Your task to perform on an android device: Go to calendar. Show me events next week Image 0: 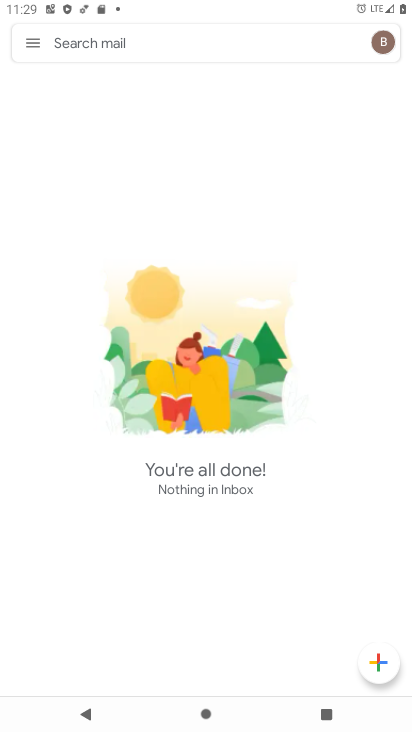
Step 0: press home button
Your task to perform on an android device: Go to calendar. Show me events next week Image 1: 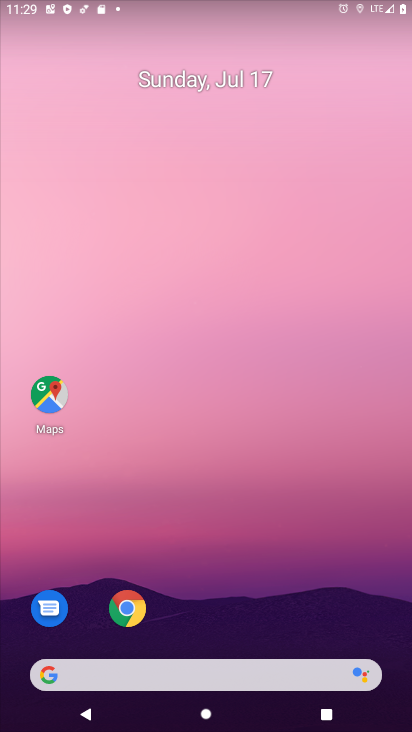
Step 1: drag from (220, 648) to (155, 34)
Your task to perform on an android device: Go to calendar. Show me events next week Image 2: 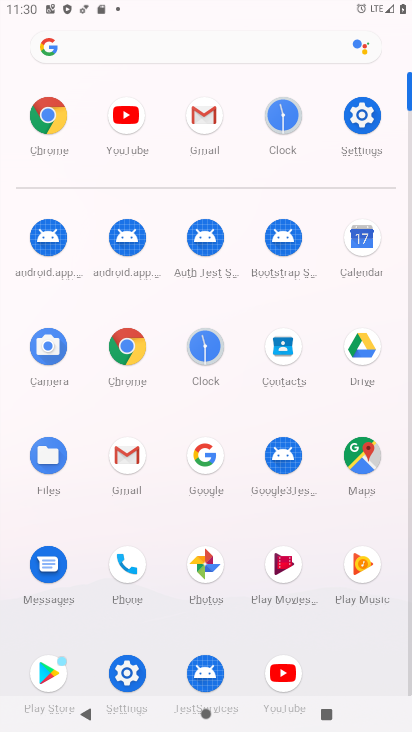
Step 2: click (374, 232)
Your task to perform on an android device: Go to calendar. Show me events next week Image 3: 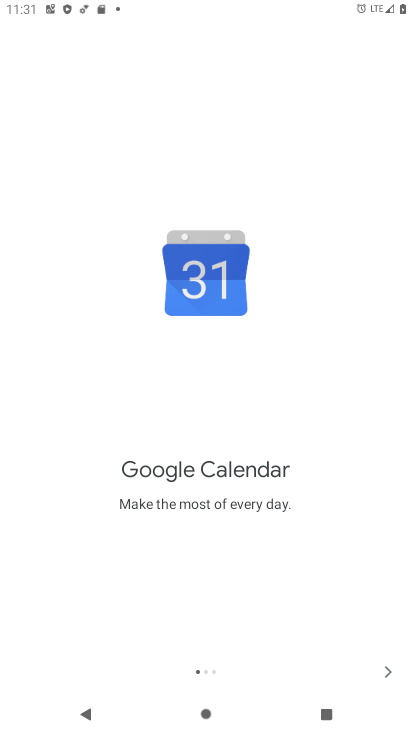
Step 3: click (384, 667)
Your task to perform on an android device: Go to calendar. Show me events next week Image 4: 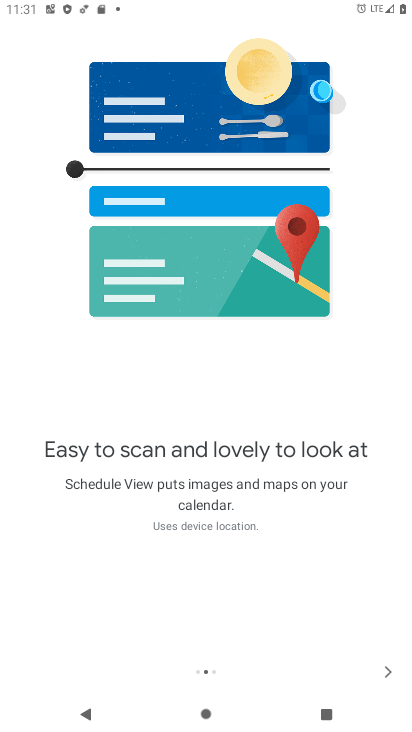
Step 4: click (392, 668)
Your task to perform on an android device: Go to calendar. Show me events next week Image 5: 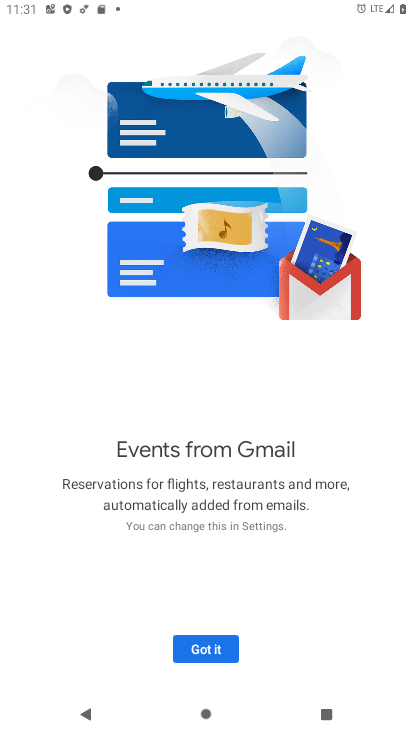
Step 5: click (201, 649)
Your task to perform on an android device: Go to calendar. Show me events next week Image 6: 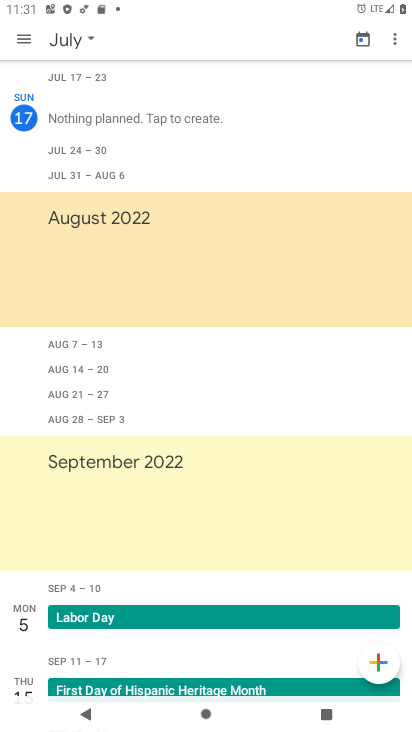
Step 6: click (27, 38)
Your task to perform on an android device: Go to calendar. Show me events next week Image 7: 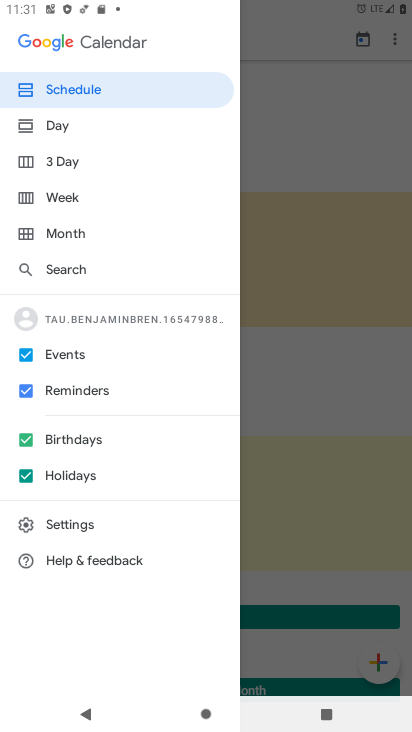
Step 7: click (51, 192)
Your task to perform on an android device: Go to calendar. Show me events next week Image 8: 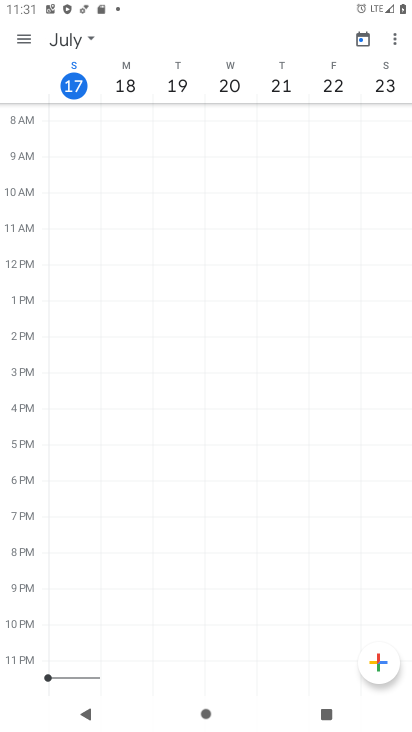
Step 8: task complete